Your task to perform on an android device: delete browsing data in the chrome app Image 0: 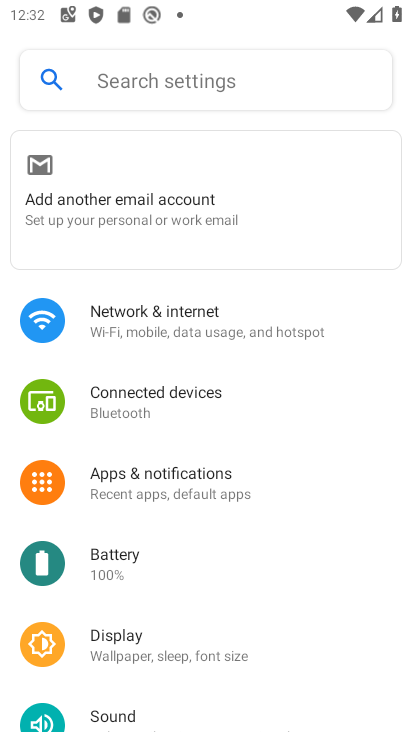
Step 0: press home button
Your task to perform on an android device: delete browsing data in the chrome app Image 1: 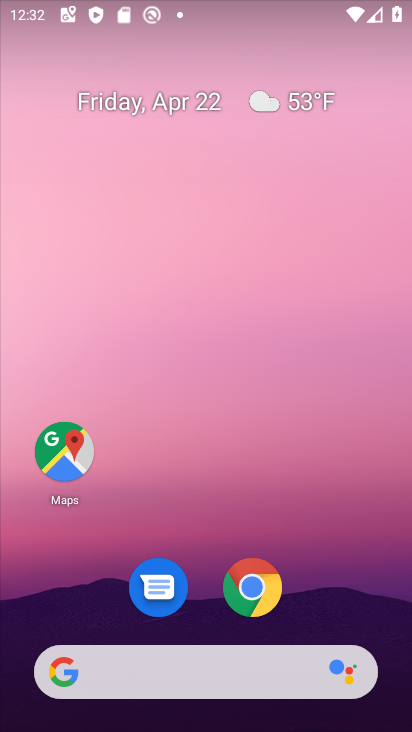
Step 1: drag from (290, 603) to (311, 0)
Your task to perform on an android device: delete browsing data in the chrome app Image 2: 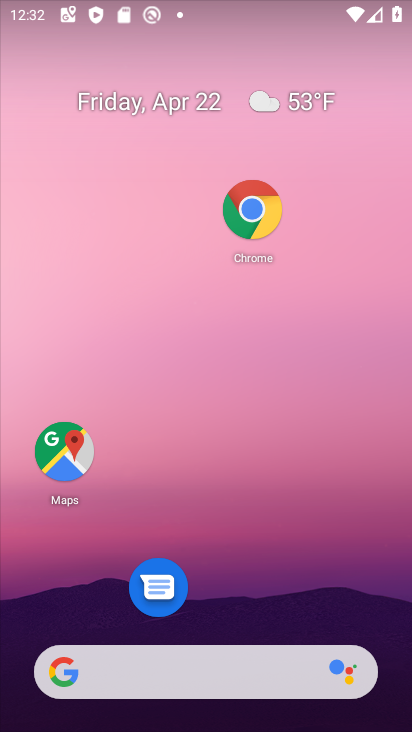
Step 2: drag from (334, 572) to (343, 111)
Your task to perform on an android device: delete browsing data in the chrome app Image 3: 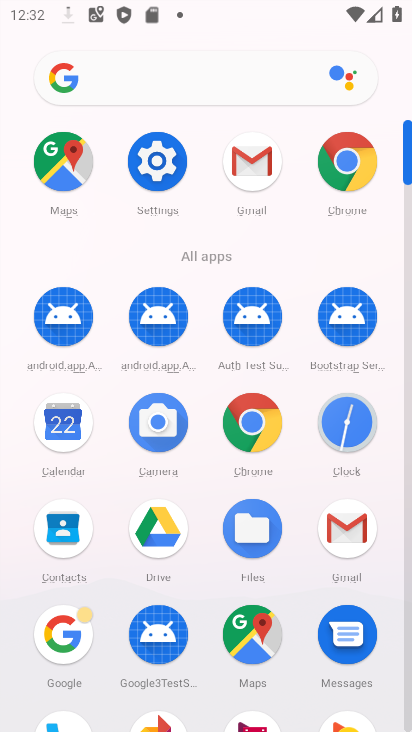
Step 3: click (266, 426)
Your task to perform on an android device: delete browsing data in the chrome app Image 4: 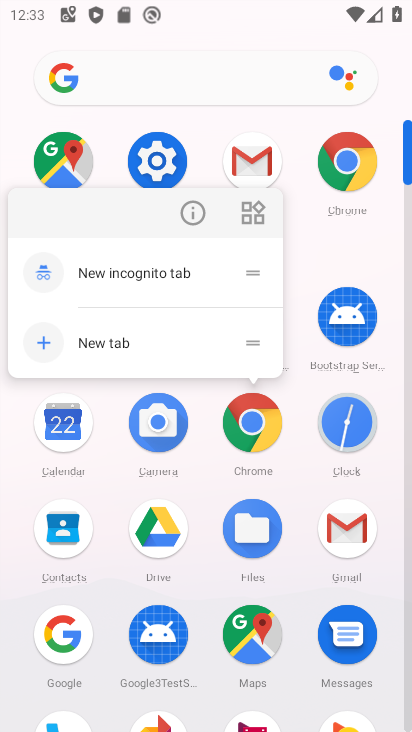
Step 4: click (266, 417)
Your task to perform on an android device: delete browsing data in the chrome app Image 5: 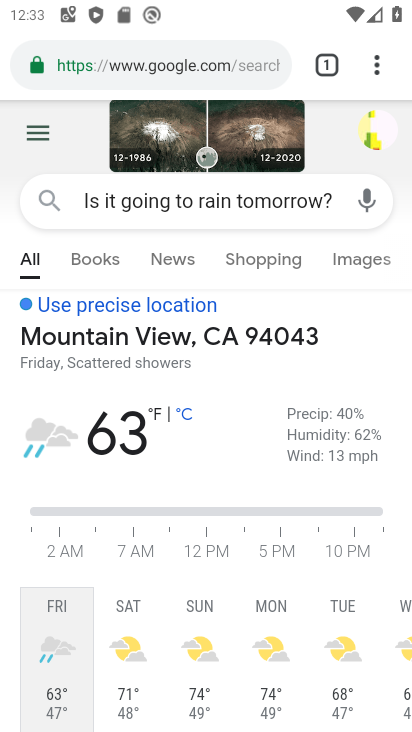
Step 5: click (375, 61)
Your task to perform on an android device: delete browsing data in the chrome app Image 6: 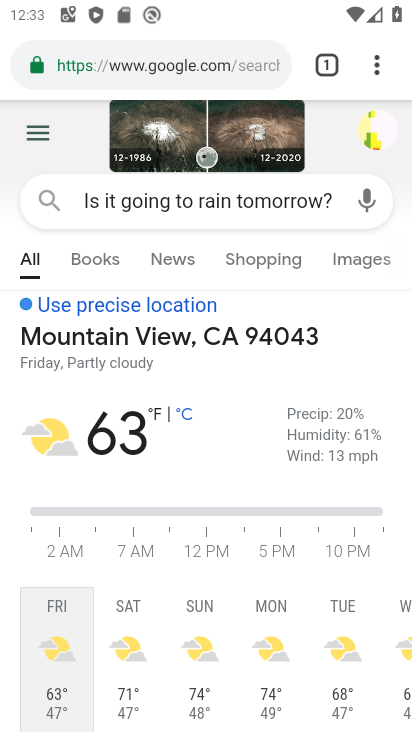
Step 6: drag from (375, 61) to (193, 638)
Your task to perform on an android device: delete browsing data in the chrome app Image 7: 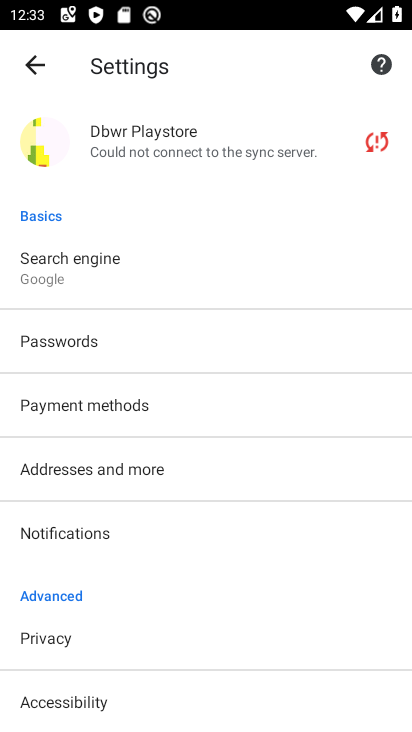
Step 7: drag from (263, 657) to (264, 256)
Your task to perform on an android device: delete browsing data in the chrome app Image 8: 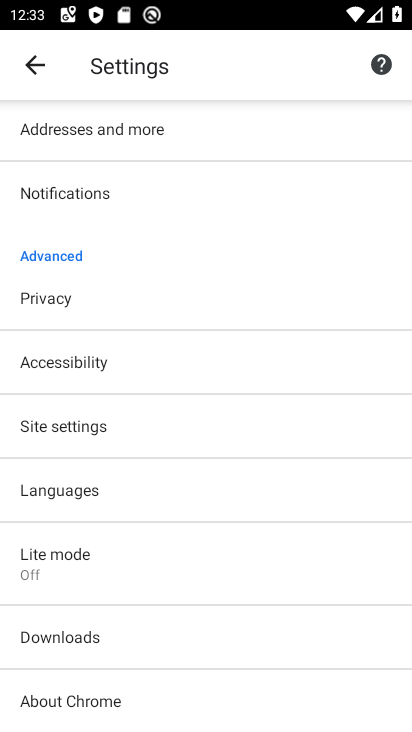
Step 8: click (59, 303)
Your task to perform on an android device: delete browsing data in the chrome app Image 9: 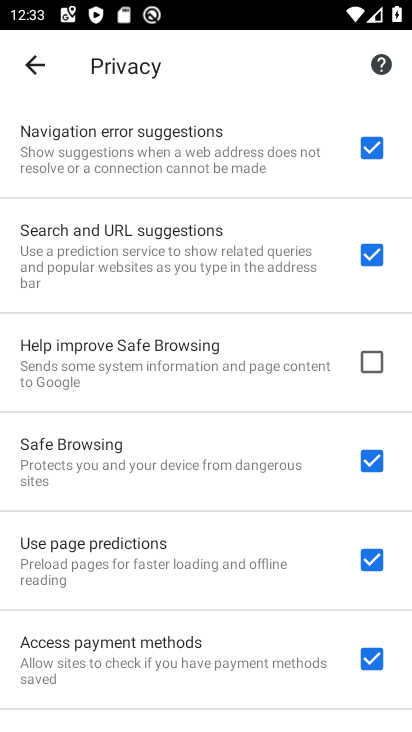
Step 9: drag from (266, 612) to (274, 217)
Your task to perform on an android device: delete browsing data in the chrome app Image 10: 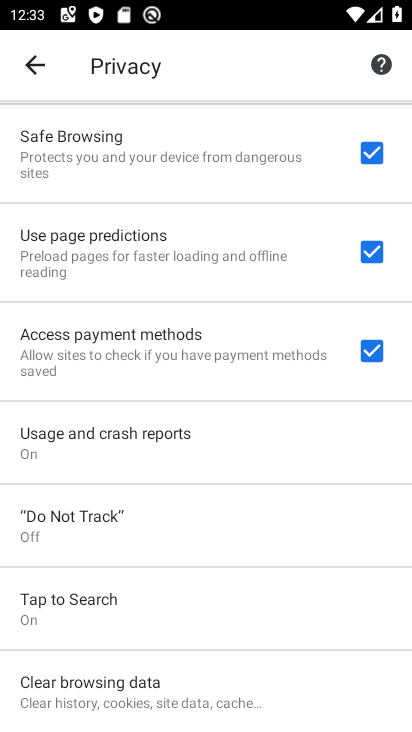
Step 10: click (51, 694)
Your task to perform on an android device: delete browsing data in the chrome app Image 11: 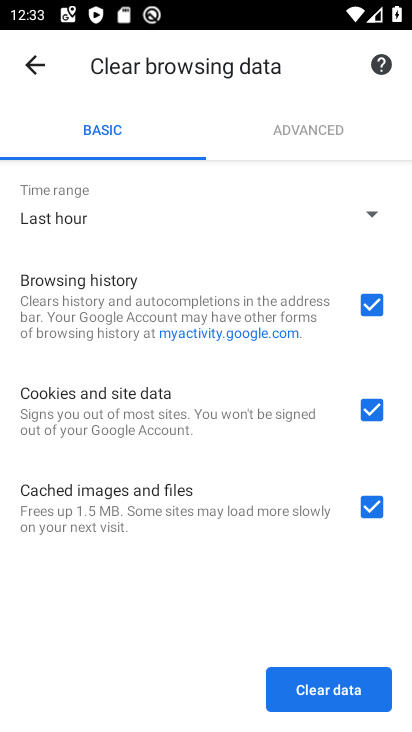
Step 11: click (357, 675)
Your task to perform on an android device: delete browsing data in the chrome app Image 12: 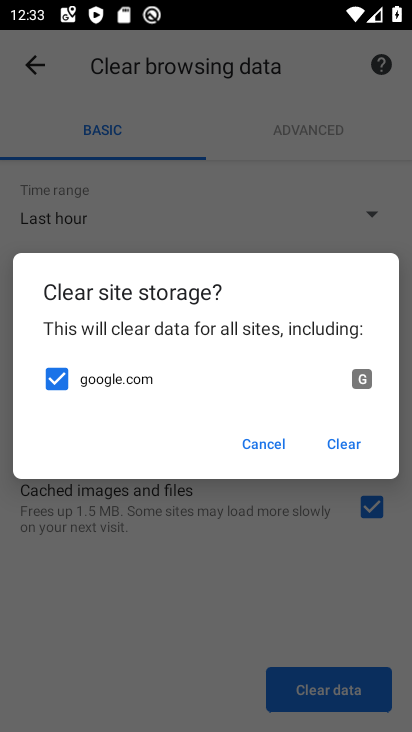
Step 12: click (339, 444)
Your task to perform on an android device: delete browsing data in the chrome app Image 13: 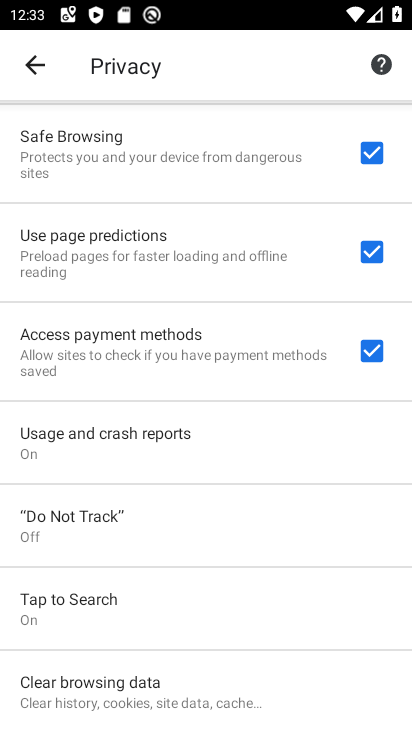
Step 13: task complete